Your task to perform on an android device: Turn on the flashlight Image 0: 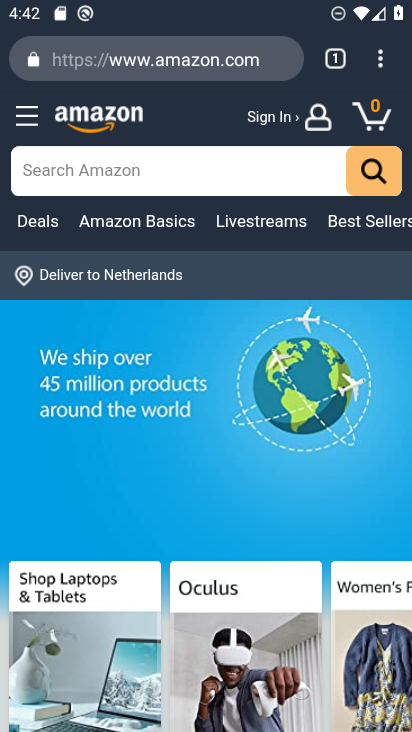
Step 0: press home button
Your task to perform on an android device: Turn on the flashlight Image 1: 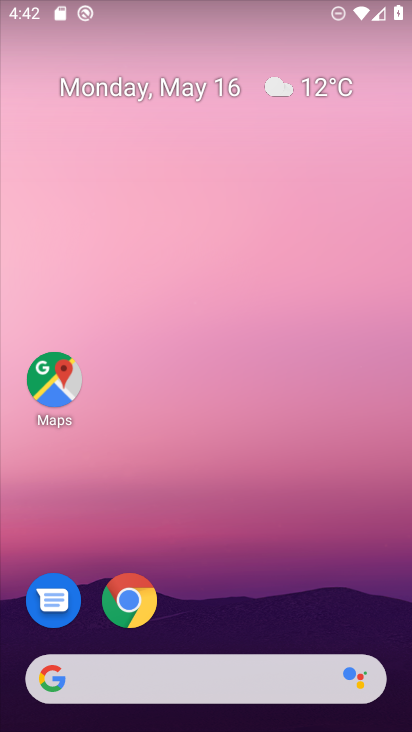
Step 1: task complete